Your task to perform on an android device: toggle data saver in the chrome app Image 0: 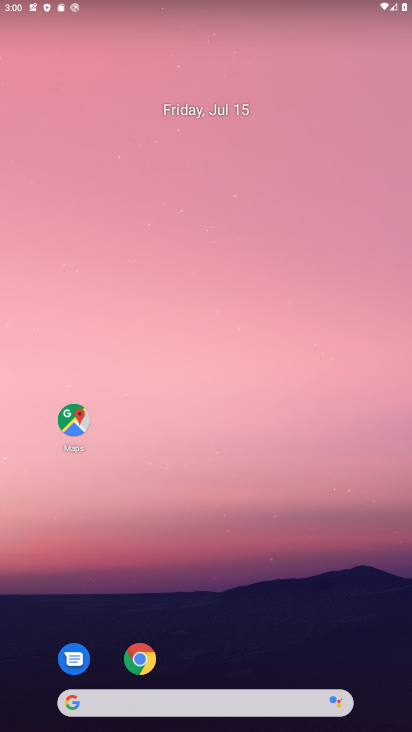
Step 0: click (152, 657)
Your task to perform on an android device: toggle data saver in the chrome app Image 1: 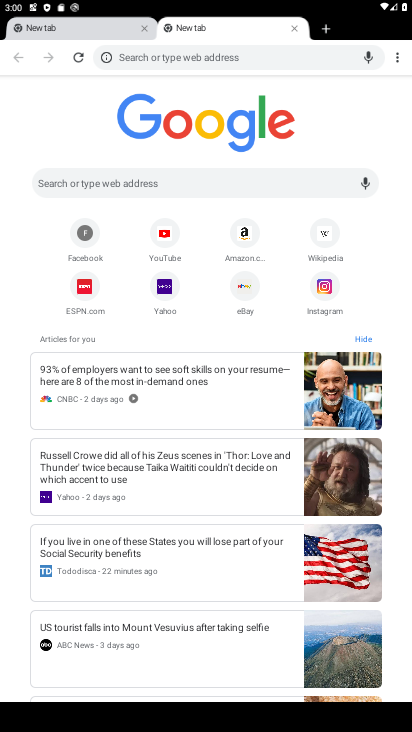
Step 1: click (399, 61)
Your task to perform on an android device: toggle data saver in the chrome app Image 2: 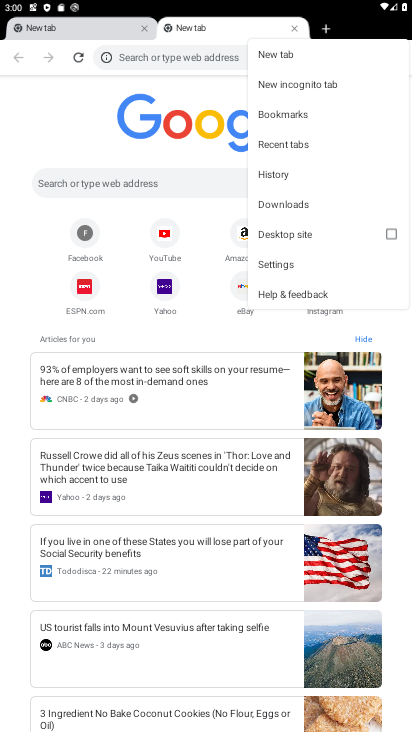
Step 2: click (288, 264)
Your task to perform on an android device: toggle data saver in the chrome app Image 3: 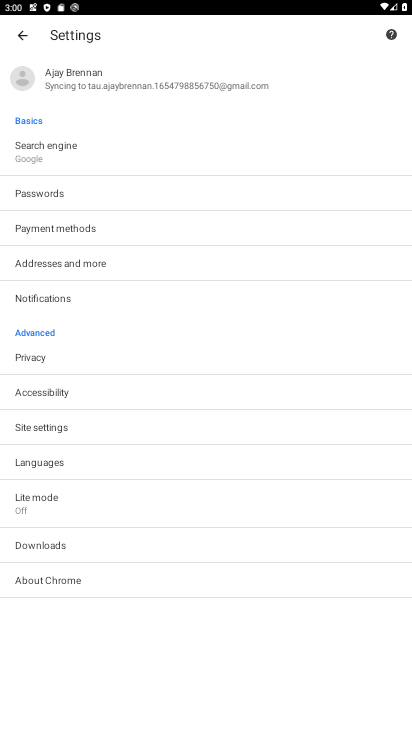
Step 3: click (34, 501)
Your task to perform on an android device: toggle data saver in the chrome app Image 4: 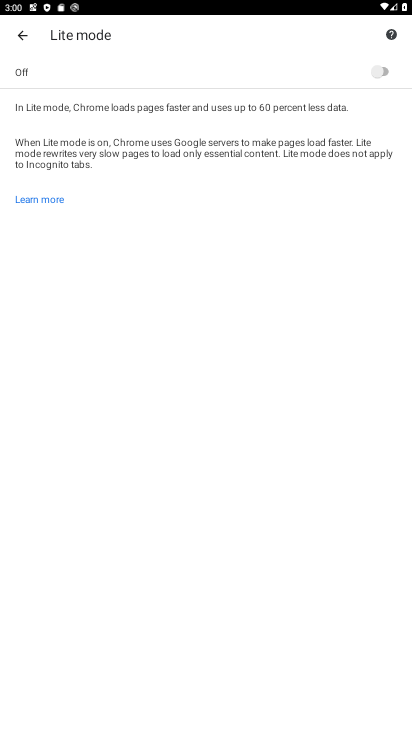
Step 4: click (379, 71)
Your task to perform on an android device: toggle data saver in the chrome app Image 5: 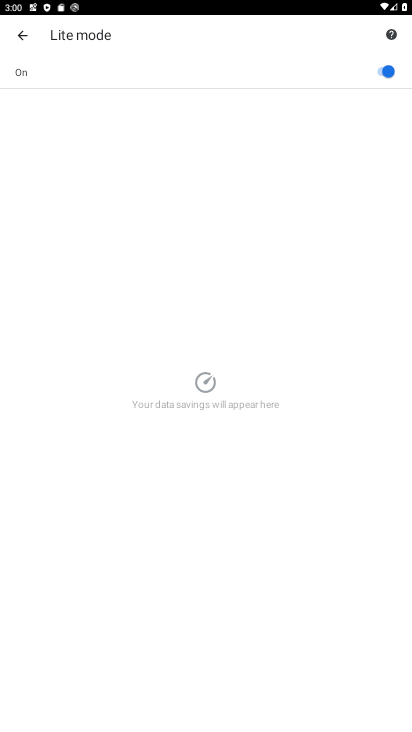
Step 5: task complete